Your task to perform on an android device: When is my next appointment? Image 0: 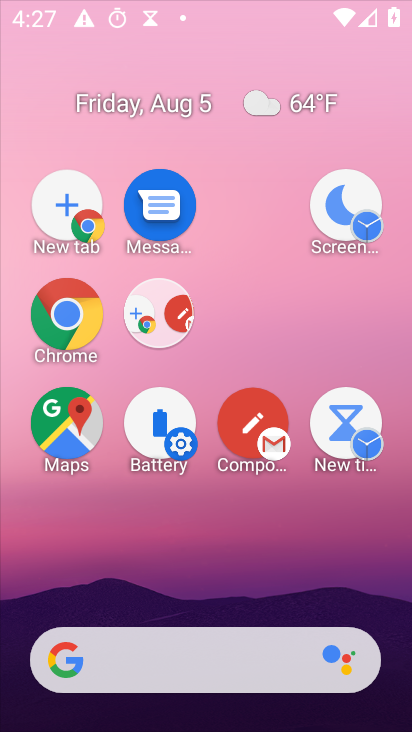
Step 0: press back button
Your task to perform on an android device: When is my next appointment? Image 1: 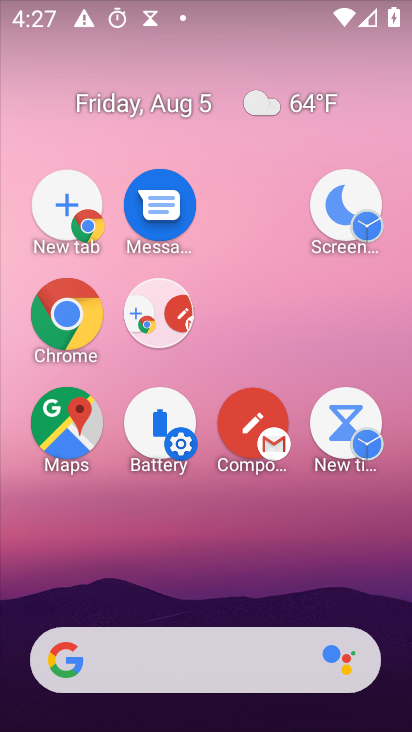
Step 1: press back button
Your task to perform on an android device: When is my next appointment? Image 2: 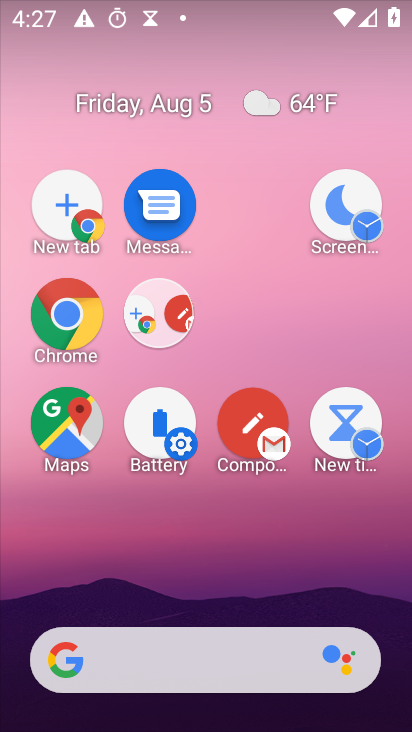
Step 2: drag from (356, 568) to (280, 301)
Your task to perform on an android device: When is my next appointment? Image 3: 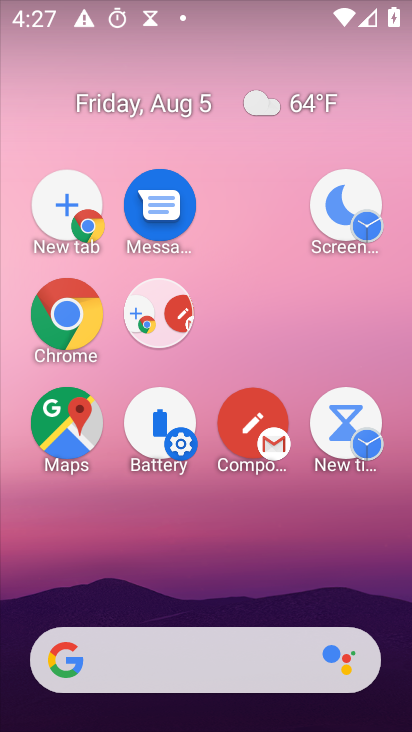
Step 3: click (222, 188)
Your task to perform on an android device: When is my next appointment? Image 4: 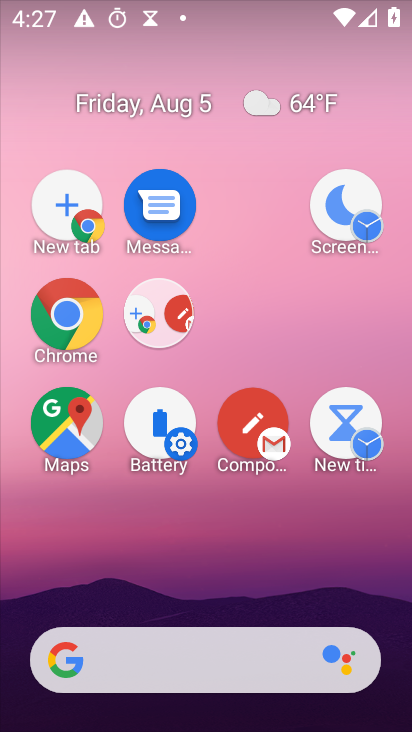
Step 4: drag from (246, 426) to (224, 145)
Your task to perform on an android device: When is my next appointment? Image 5: 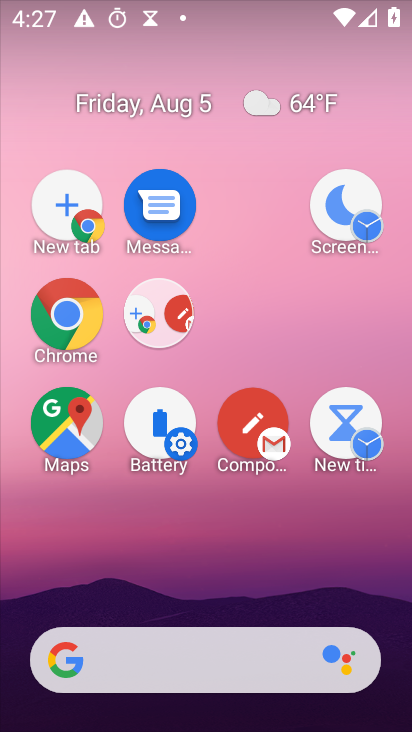
Step 5: drag from (250, 356) to (256, 169)
Your task to perform on an android device: When is my next appointment? Image 6: 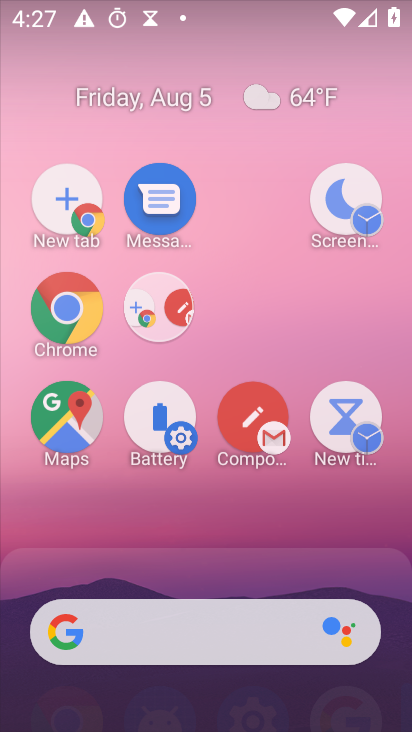
Step 6: drag from (302, 146) to (304, 97)
Your task to perform on an android device: When is my next appointment? Image 7: 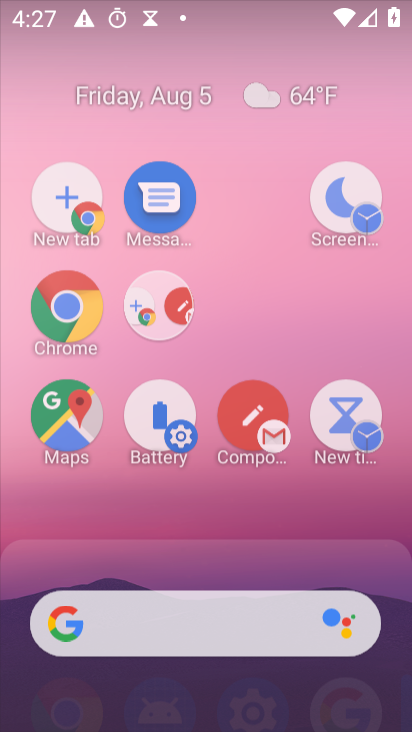
Step 7: drag from (290, 228) to (259, 13)
Your task to perform on an android device: When is my next appointment? Image 8: 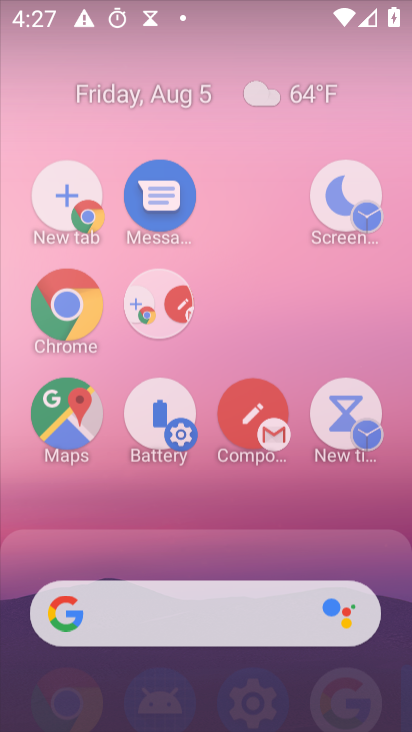
Step 8: drag from (258, 281) to (221, 112)
Your task to perform on an android device: When is my next appointment? Image 9: 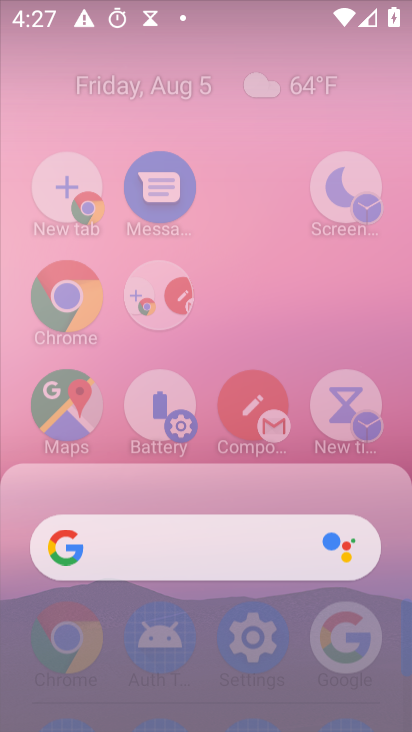
Step 9: drag from (214, 258) to (224, 60)
Your task to perform on an android device: When is my next appointment? Image 10: 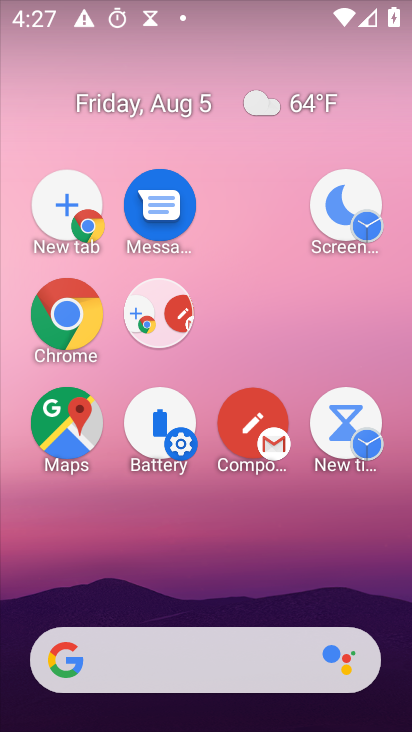
Step 10: drag from (221, 482) to (154, 62)
Your task to perform on an android device: When is my next appointment? Image 11: 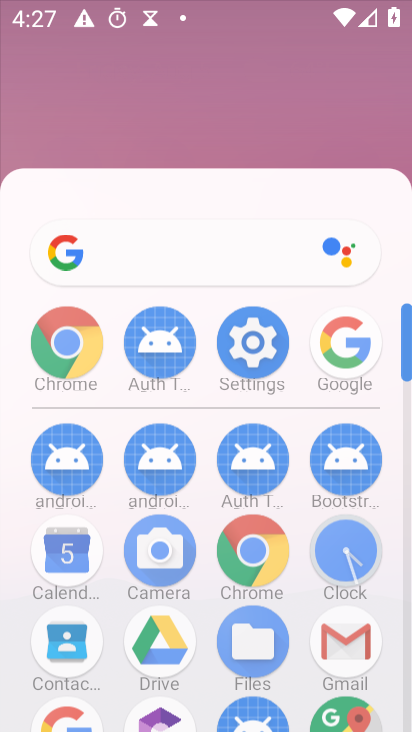
Step 11: drag from (185, 434) to (130, 50)
Your task to perform on an android device: When is my next appointment? Image 12: 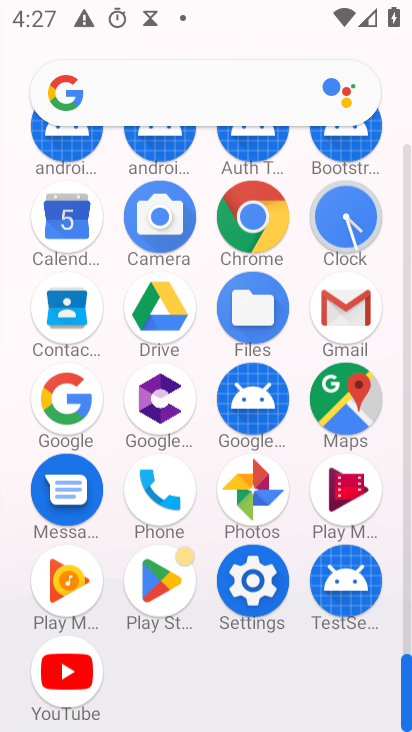
Step 12: drag from (216, 384) to (179, 60)
Your task to perform on an android device: When is my next appointment? Image 13: 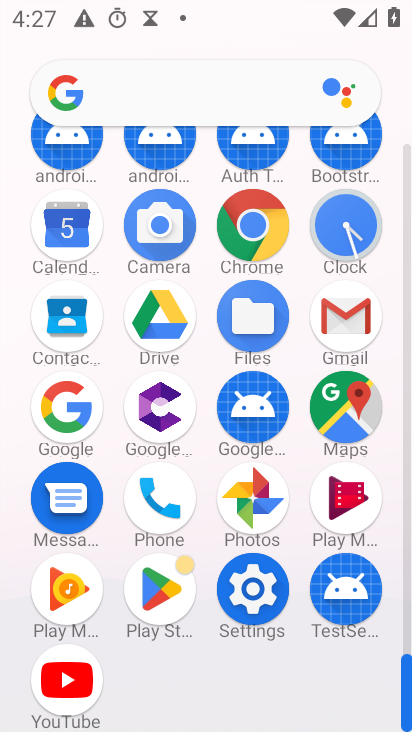
Step 13: click (69, 239)
Your task to perform on an android device: When is my next appointment? Image 14: 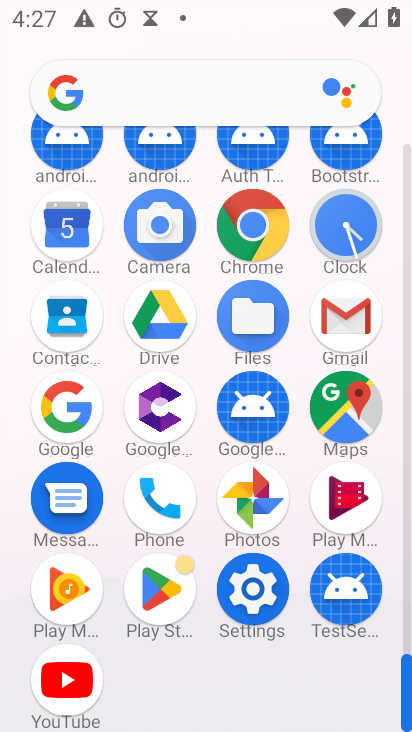
Step 14: click (69, 239)
Your task to perform on an android device: When is my next appointment? Image 15: 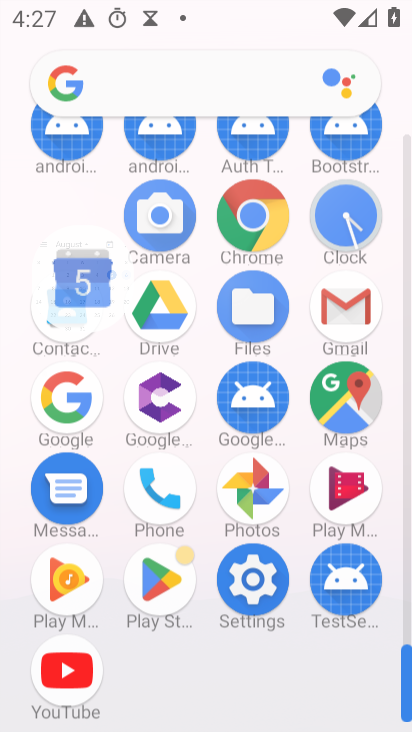
Step 15: click (70, 240)
Your task to perform on an android device: When is my next appointment? Image 16: 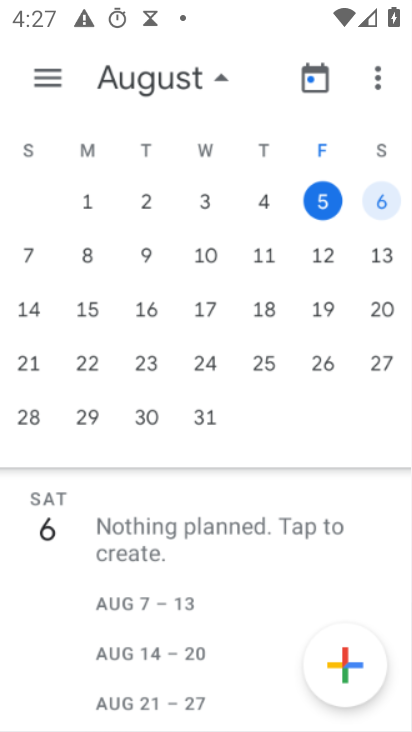
Step 16: click (70, 240)
Your task to perform on an android device: When is my next appointment? Image 17: 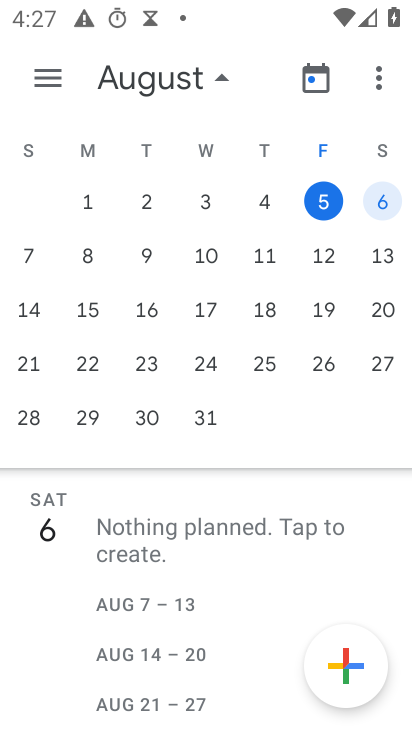
Step 17: task complete